Your task to perform on an android device: toggle improve location accuracy Image 0: 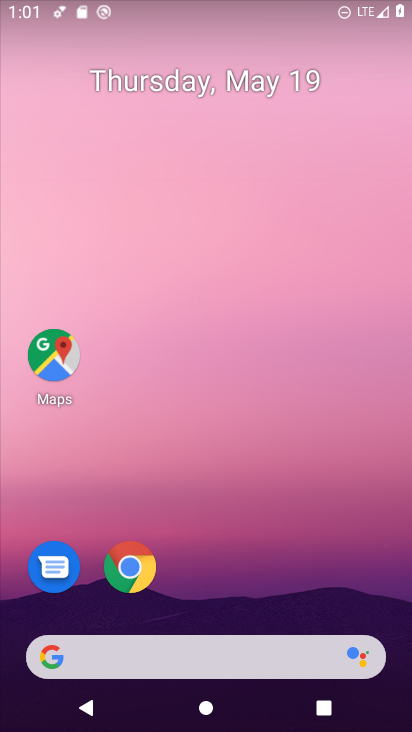
Step 0: drag from (277, 464) to (282, 14)
Your task to perform on an android device: toggle improve location accuracy Image 1: 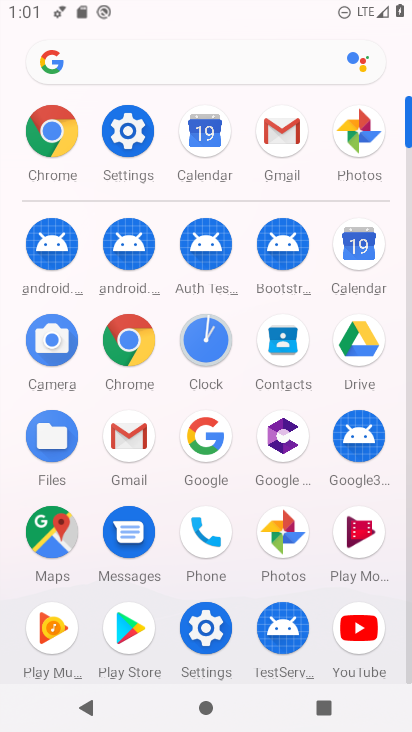
Step 1: click (136, 131)
Your task to perform on an android device: toggle improve location accuracy Image 2: 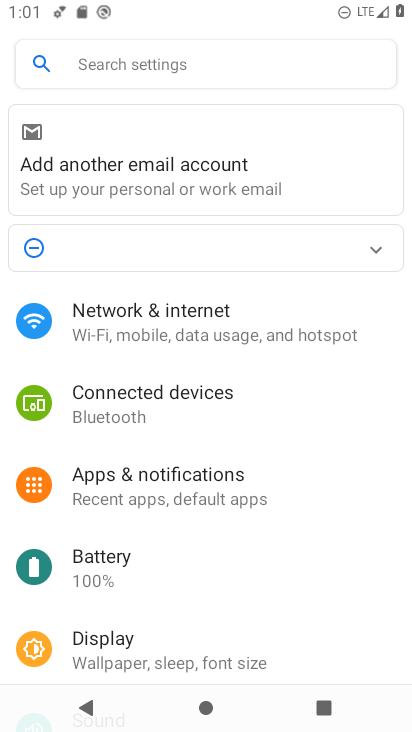
Step 2: drag from (234, 586) to (288, 100)
Your task to perform on an android device: toggle improve location accuracy Image 3: 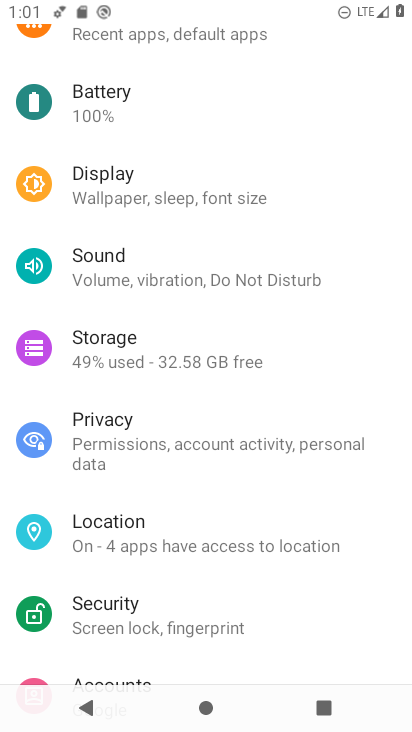
Step 3: click (245, 529)
Your task to perform on an android device: toggle improve location accuracy Image 4: 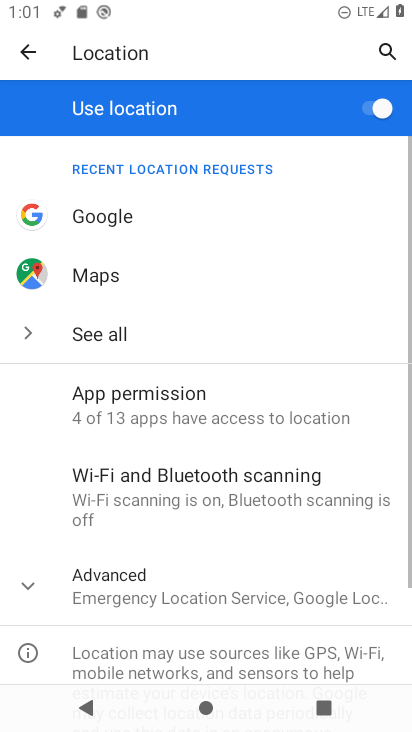
Step 4: click (29, 582)
Your task to perform on an android device: toggle improve location accuracy Image 5: 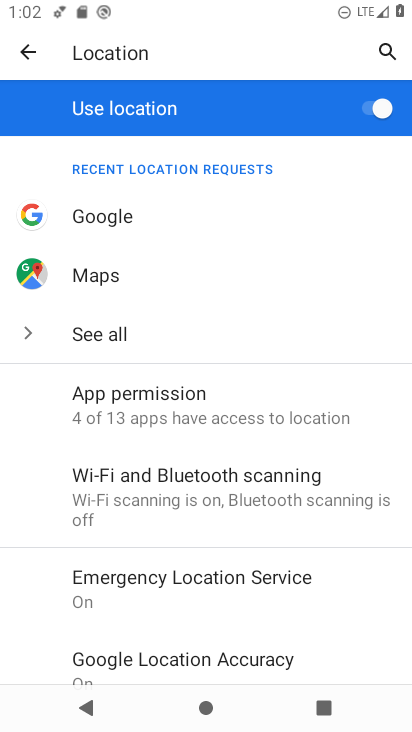
Step 5: drag from (248, 572) to (265, 436)
Your task to perform on an android device: toggle improve location accuracy Image 6: 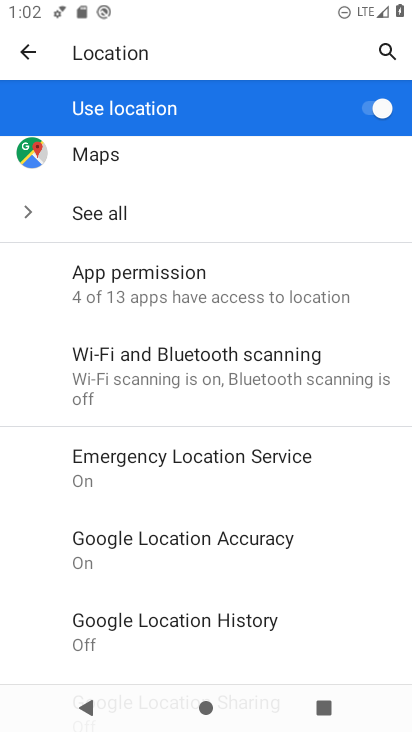
Step 6: click (255, 554)
Your task to perform on an android device: toggle improve location accuracy Image 7: 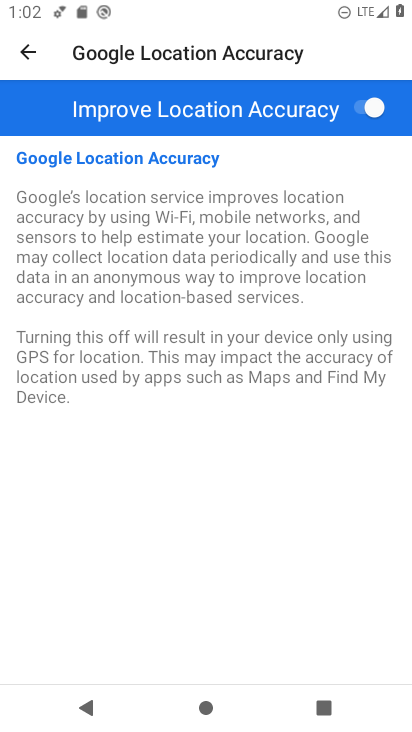
Step 7: click (358, 96)
Your task to perform on an android device: toggle improve location accuracy Image 8: 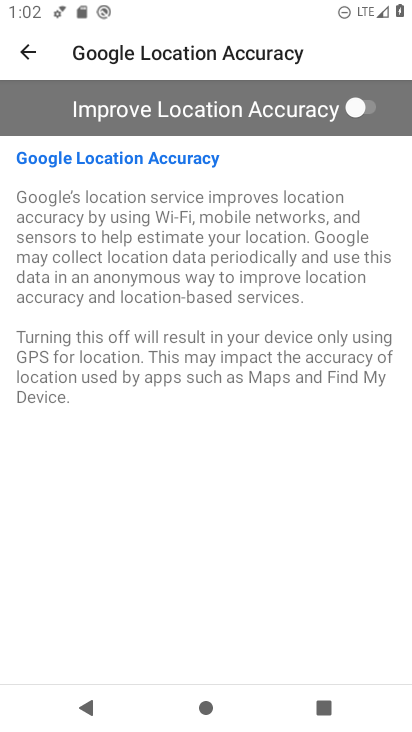
Step 8: task complete